Your task to perform on an android device: Search for vegetarian restaurants on Maps Image 0: 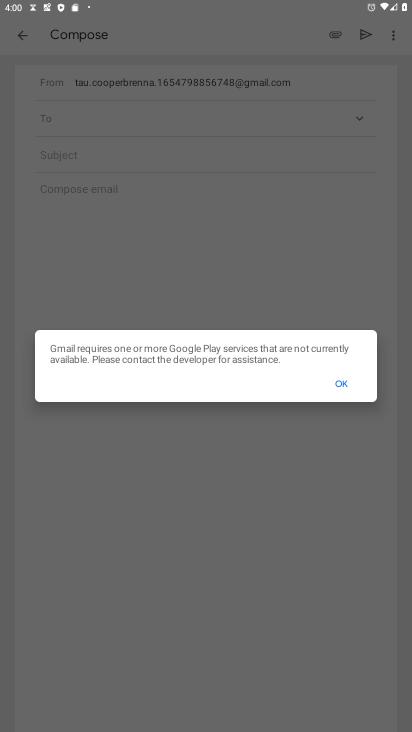
Step 0: press home button
Your task to perform on an android device: Search for vegetarian restaurants on Maps Image 1: 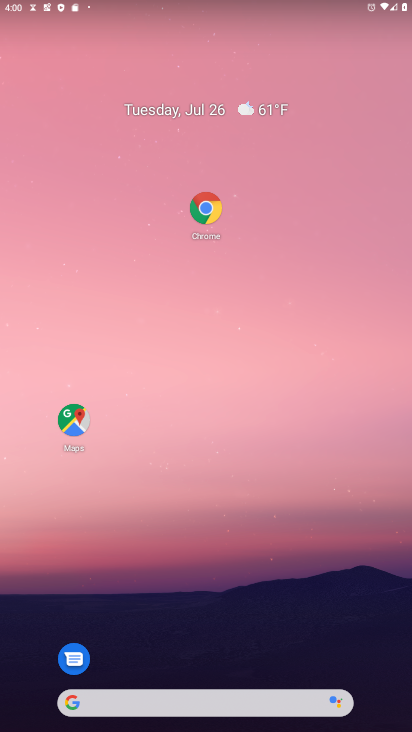
Step 1: drag from (158, 561) to (146, 146)
Your task to perform on an android device: Search for vegetarian restaurants on Maps Image 2: 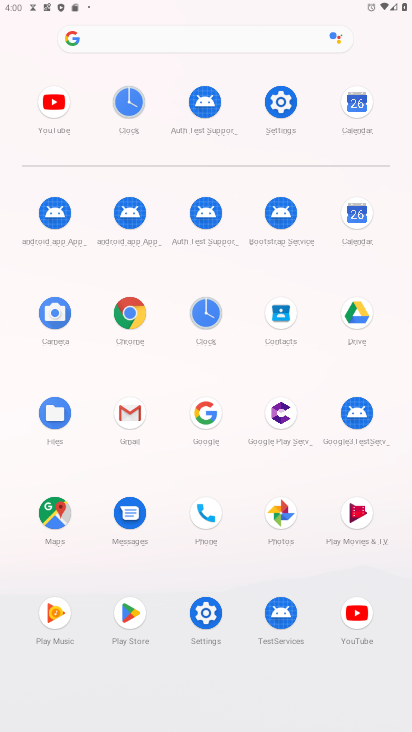
Step 2: click (53, 523)
Your task to perform on an android device: Search for vegetarian restaurants on Maps Image 3: 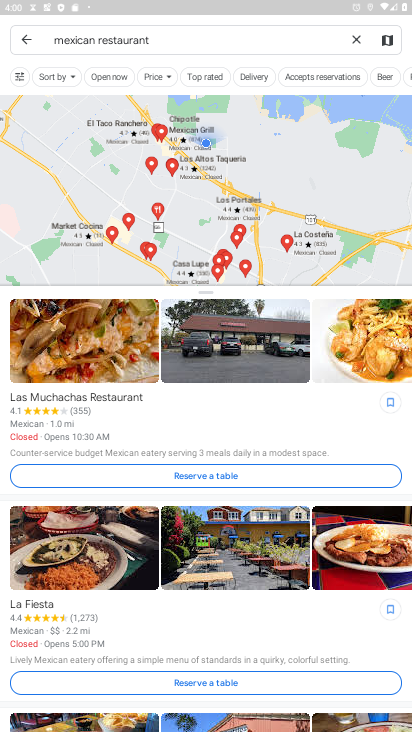
Step 3: click (358, 33)
Your task to perform on an android device: Search for vegetarian restaurants on Maps Image 4: 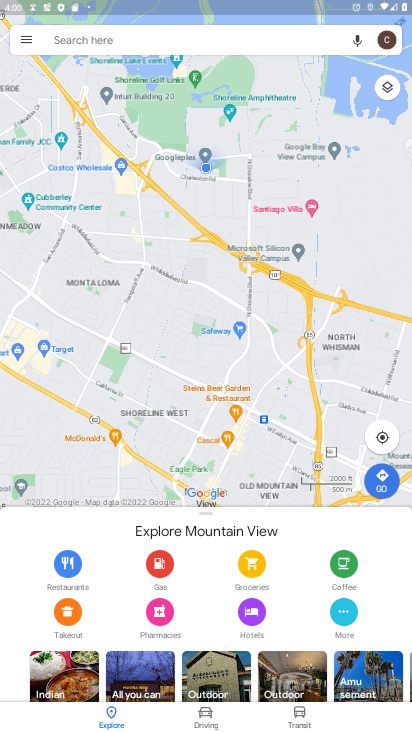
Step 4: click (214, 36)
Your task to perform on an android device: Search for vegetarian restaurants on Maps Image 5: 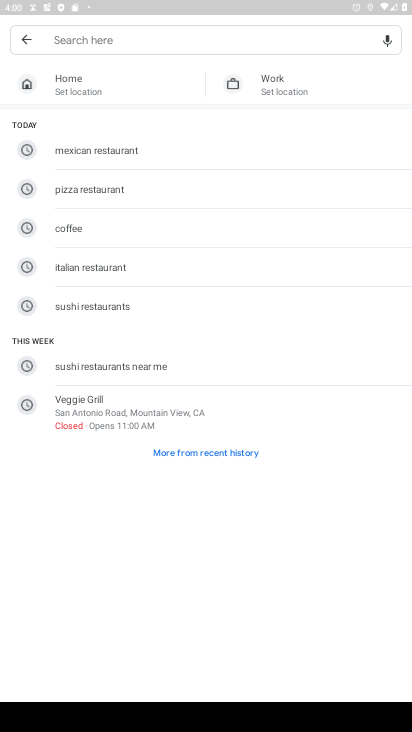
Step 5: type "vegetarian restaurants"
Your task to perform on an android device: Search for vegetarian restaurants on Maps Image 6: 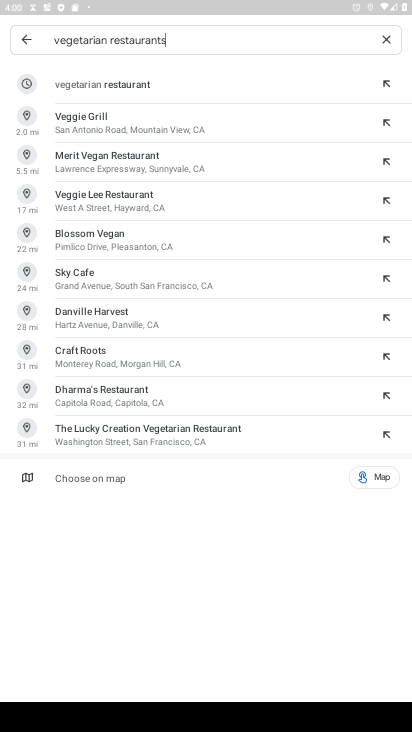
Step 6: click (120, 86)
Your task to perform on an android device: Search for vegetarian restaurants on Maps Image 7: 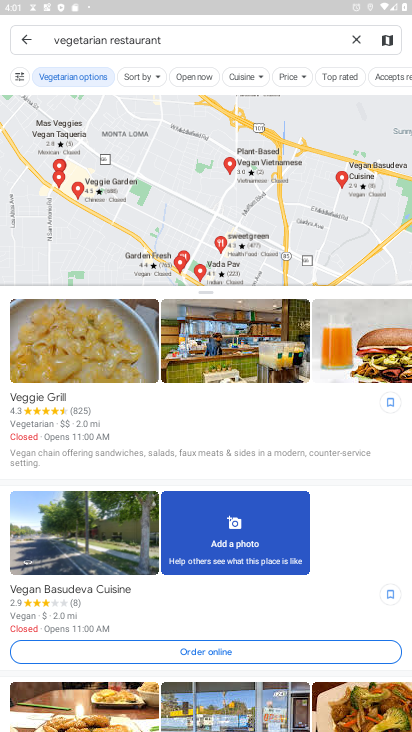
Step 7: task complete